Your task to perform on an android device: open sync settings in chrome Image 0: 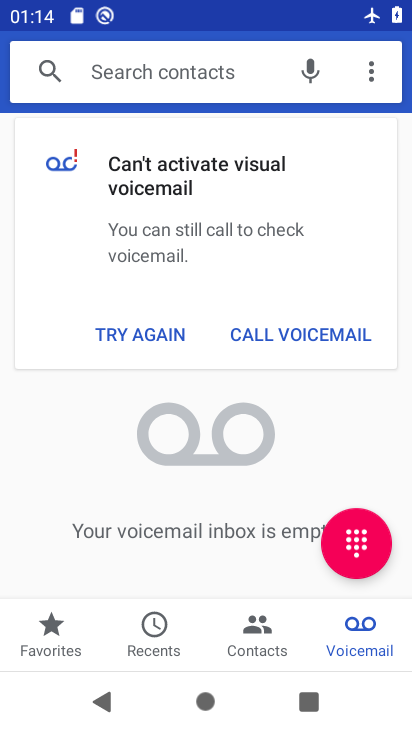
Step 0: press home button
Your task to perform on an android device: open sync settings in chrome Image 1: 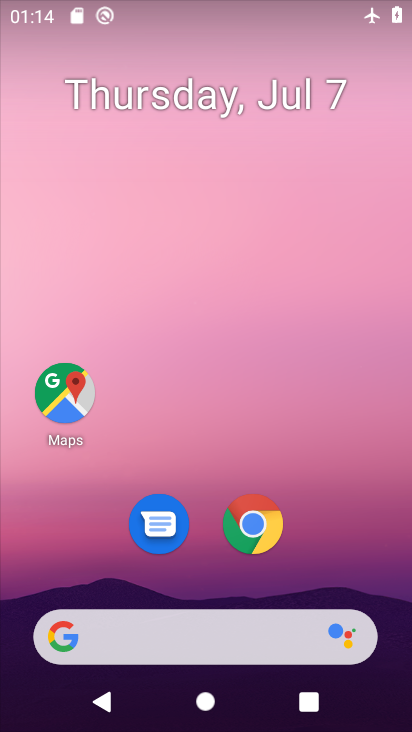
Step 1: click (261, 516)
Your task to perform on an android device: open sync settings in chrome Image 2: 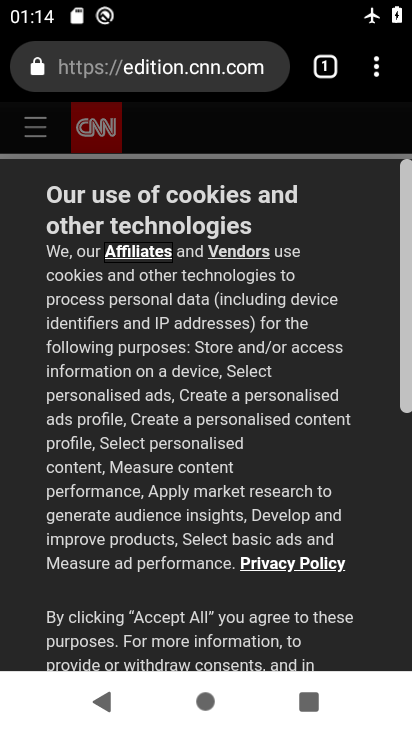
Step 2: click (376, 72)
Your task to perform on an android device: open sync settings in chrome Image 3: 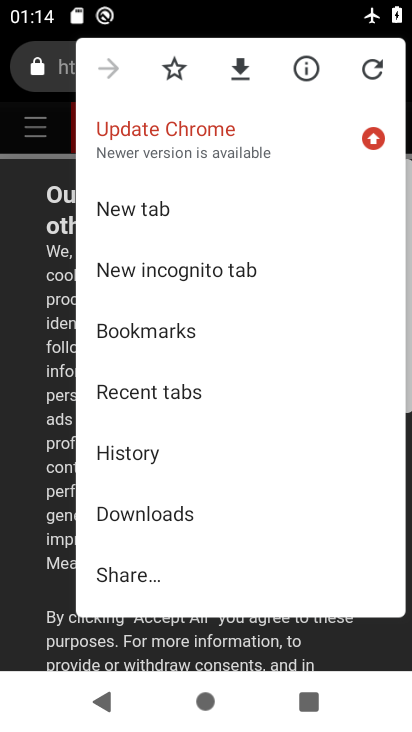
Step 3: drag from (239, 500) to (285, 174)
Your task to perform on an android device: open sync settings in chrome Image 4: 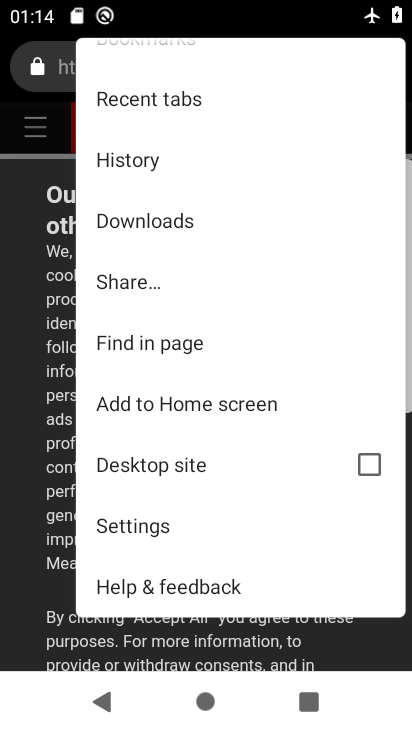
Step 4: click (169, 524)
Your task to perform on an android device: open sync settings in chrome Image 5: 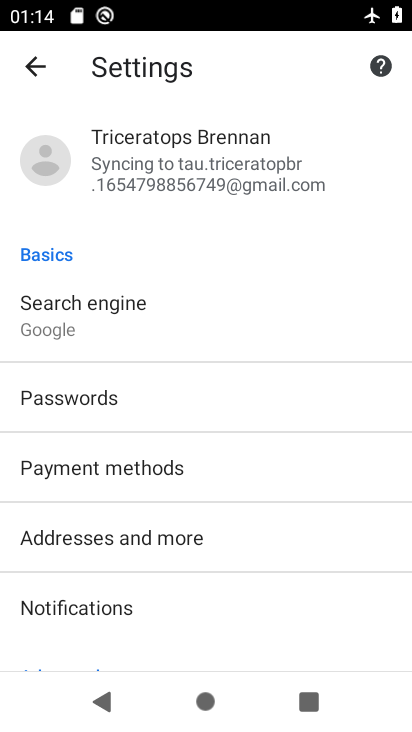
Step 5: click (232, 154)
Your task to perform on an android device: open sync settings in chrome Image 6: 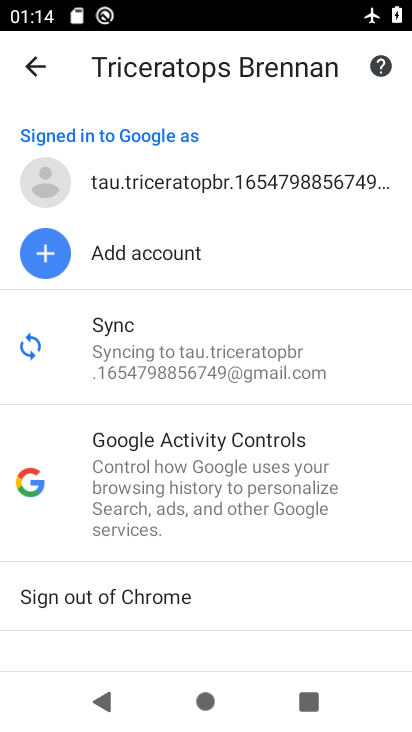
Step 6: click (143, 355)
Your task to perform on an android device: open sync settings in chrome Image 7: 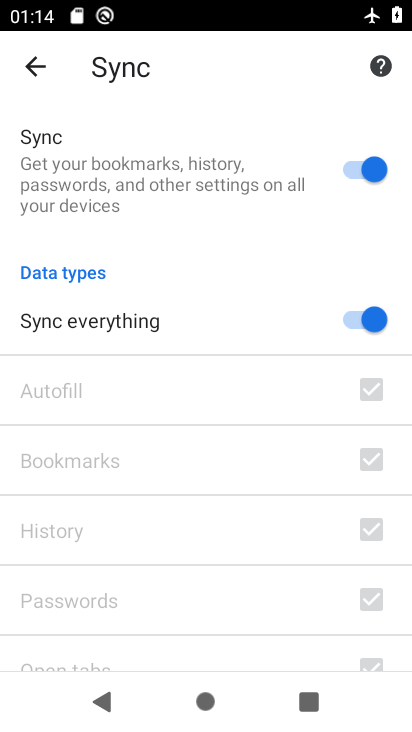
Step 7: task complete